Your task to perform on an android device: open the mobile data screen to see how much data has been used Image 0: 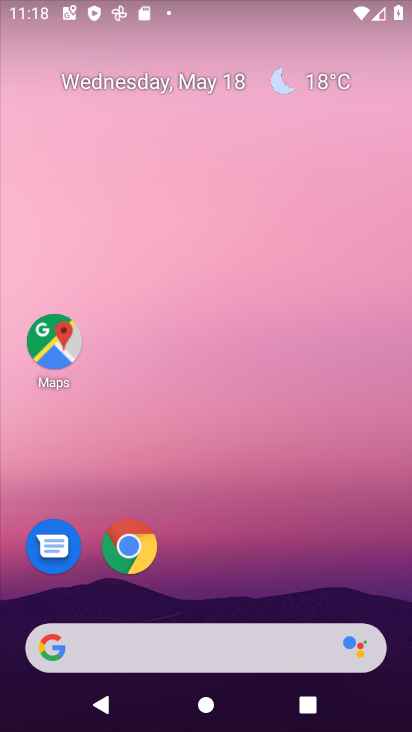
Step 0: drag from (225, 719) to (207, 196)
Your task to perform on an android device: open the mobile data screen to see how much data has been used Image 1: 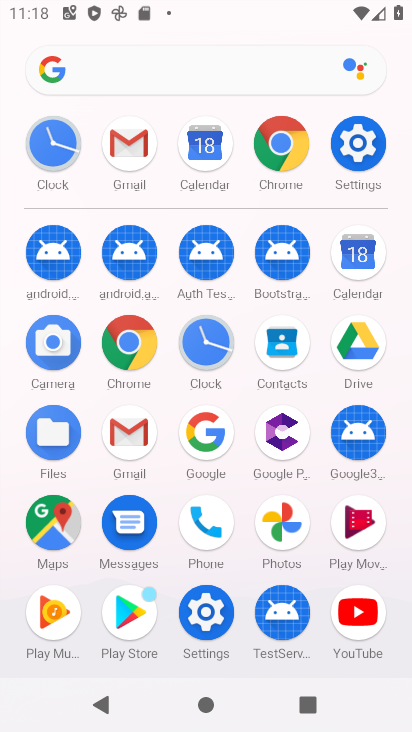
Step 1: click (357, 144)
Your task to perform on an android device: open the mobile data screen to see how much data has been used Image 2: 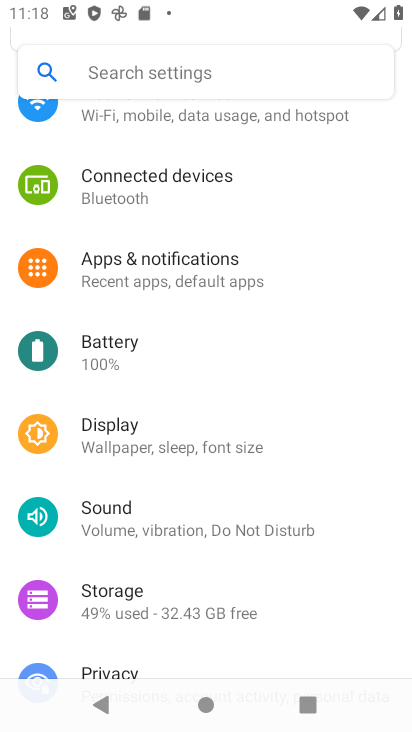
Step 2: drag from (280, 201) to (279, 503)
Your task to perform on an android device: open the mobile data screen to see how much data has been used Image 3: 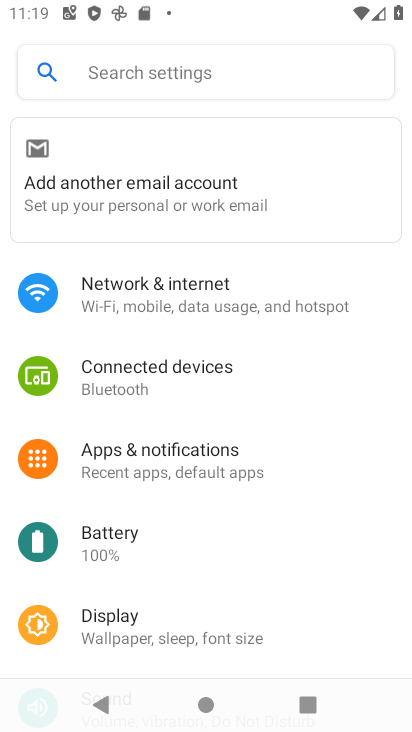
Step 3: click (132, 296)
Your task to perform on an android device: open the mobile data screen to see how much data has been used Image 4: 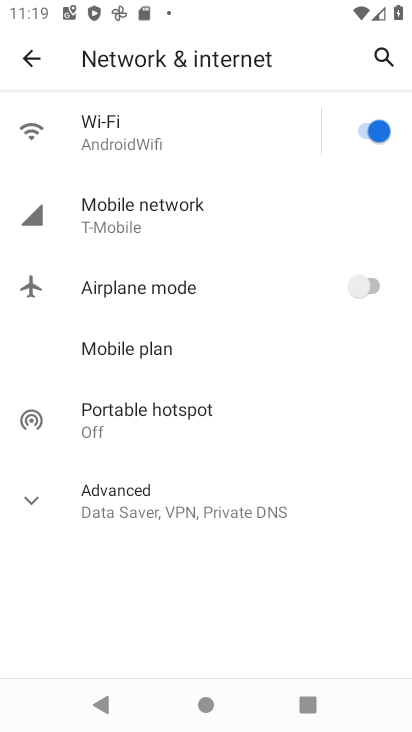
Step 4: click (136, 214)
Your task to perform on an android device: open the mobile data screen to see how much data has been used Image 5: 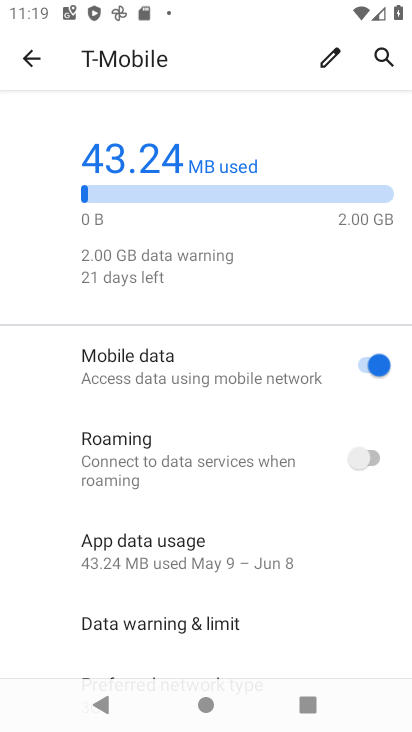
Step 5: click (129, 545)
Your task to perform on an android device: open the mobile data screen to see how much data has been used Image 6: 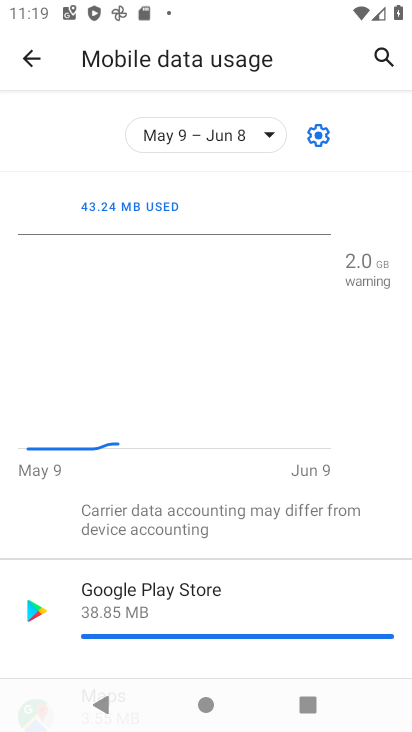
Step 6: task complete